Your task to perform on an android device: set an alarm Image 0: 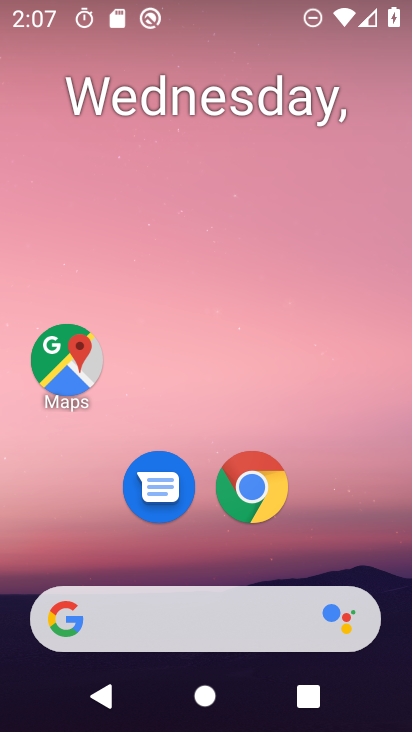
Step 0: drag from (179, 574) to (215, 96)
Your task to perform on an android device: set an alarm Image 1: 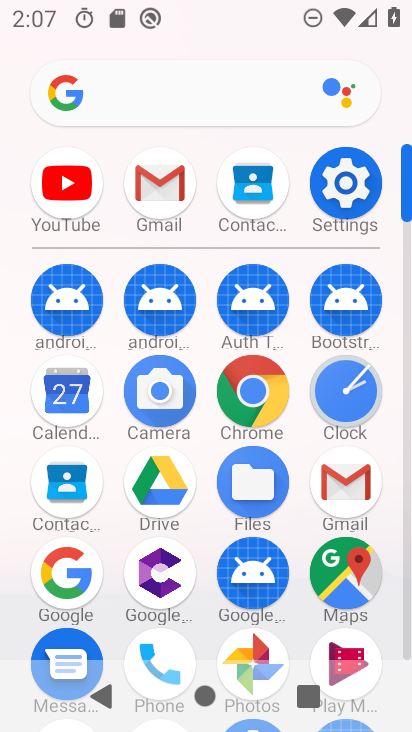
Step 1: click (348, 391)
Your task to perform on an android device: set an alarm Image 2: 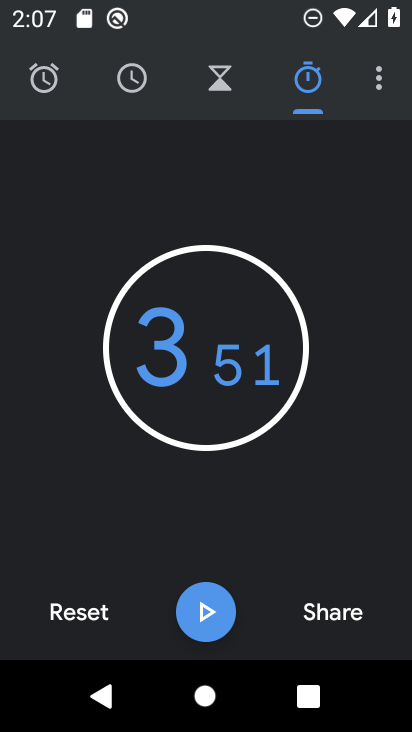
Step 2: click (39, 77)
Your task to perform on an android device: set an alarm Image 3: 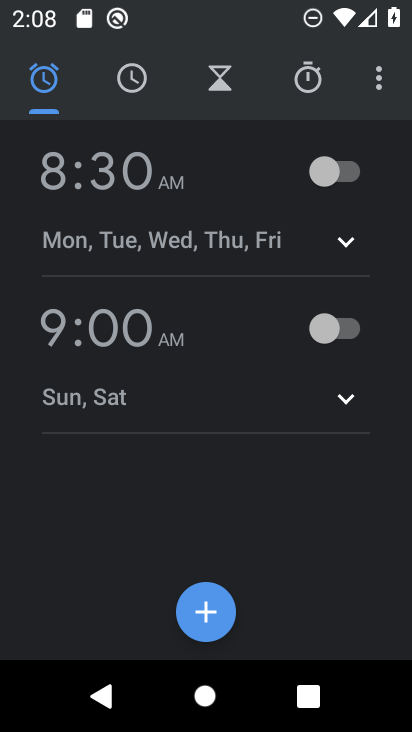
Step 3: click (342, 173)
Your task to perform on an android device: set an alarm Image 4: 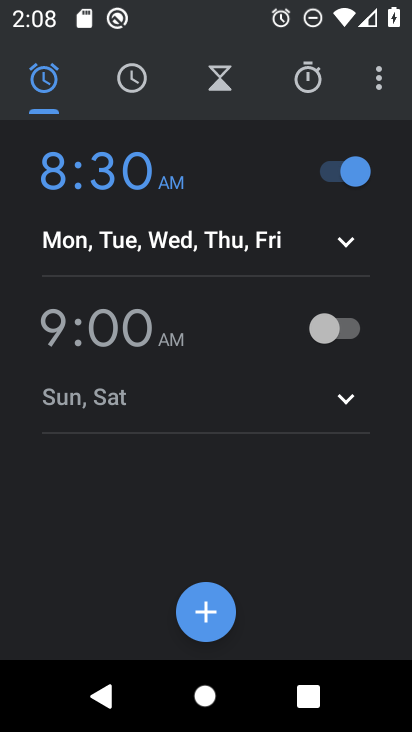
Step 4: task complete